Your task to perform on an android device: Open Chrome and go to settings Image 0: 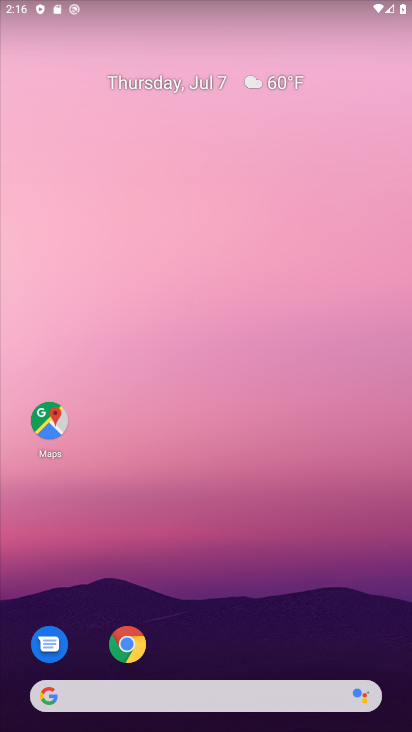
Step 0: click (117, 647)
Your task to perform on an android device: Open Chrome and go to settings Image 1: 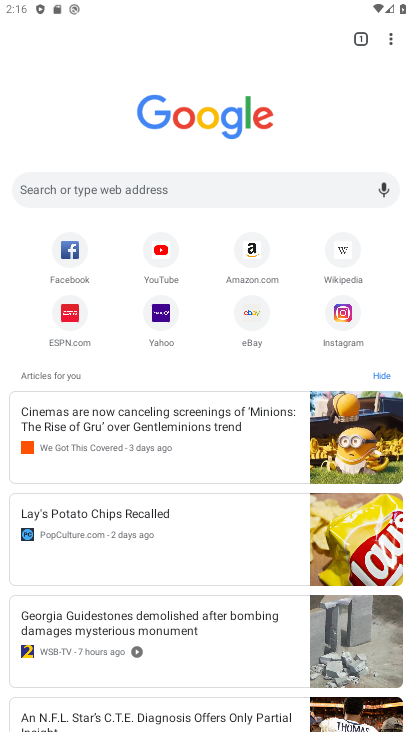
Step 1: task complete